Your task to perform on an android device: Is it going to rain this weekend? Image 0: 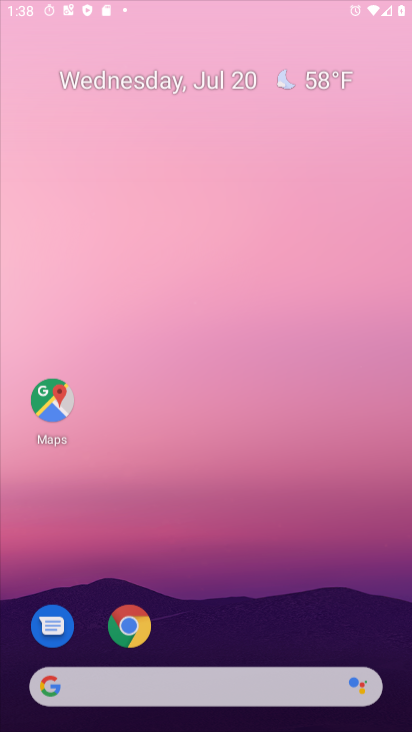
Step 0: press home button
Your task to perform on an android device: Is it going to rain this weekend? Image 1: 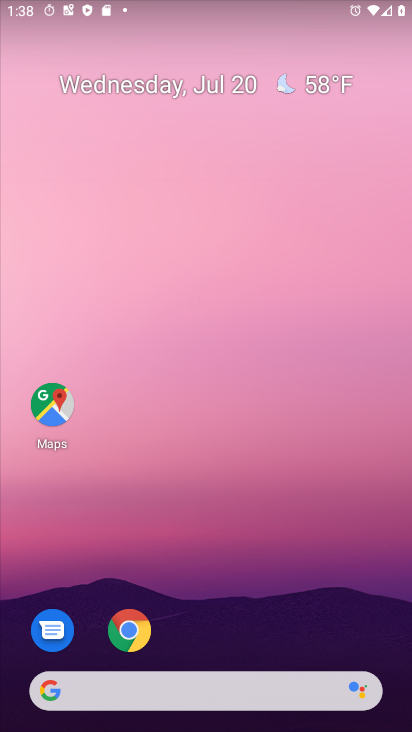
Step 1: press home button
Your task to perform on an android device: Is it going to rain this weekend? Image 2: 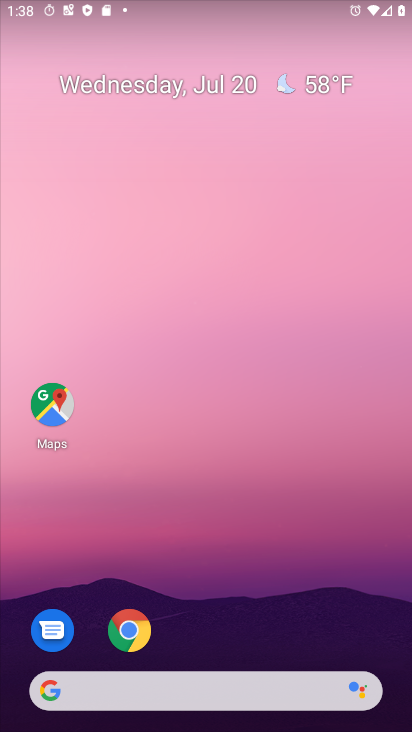
Step 2: click (153, 694)
Your task to perform on an android device: Is it going to rain this weekend? Image 3: 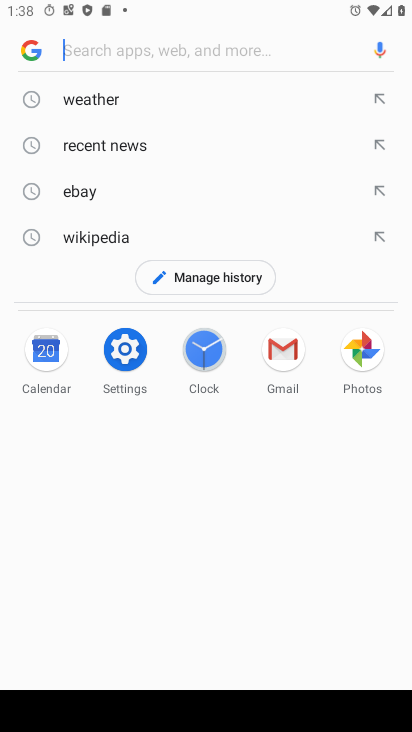
Step 3: click (87, 102)
Your task to perform on an android device: Is it going to rain this weekend? Image 4: 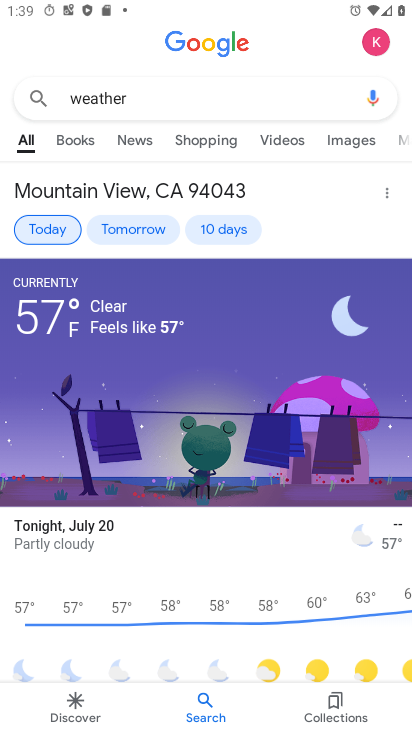
Step 4: click (221, 226)
Your task to perform on an android device: Is it going to rain this weekend? Image 5: 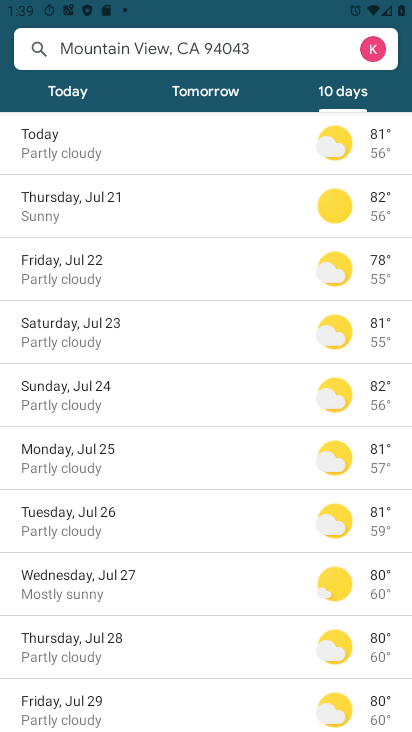
Step 5: click (101, 333)
Your task to perform on an android device: Is it going to rain this weekend? Image 6: 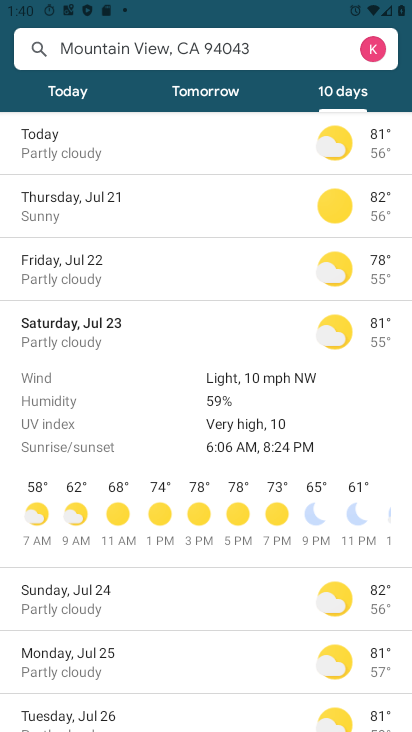
Step 6: task complete